Your task to perform on an android device: change timer sound Image 0: 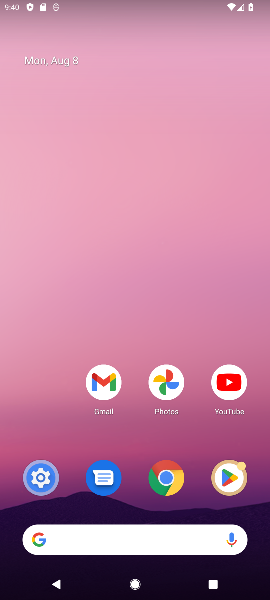
Step 0: drag from (141, 433) to (225, 84)
Your task to perform on an android device: change timer sound Image 1: 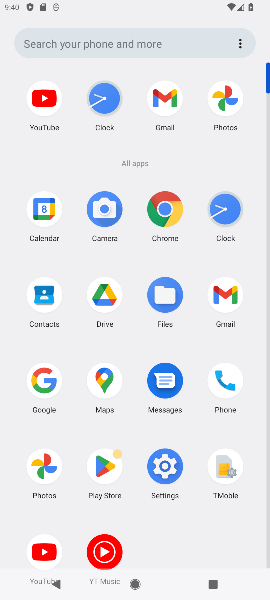
Step 1: click (222, 208)
Your task to perform on an android device: change timer sound Image 2: 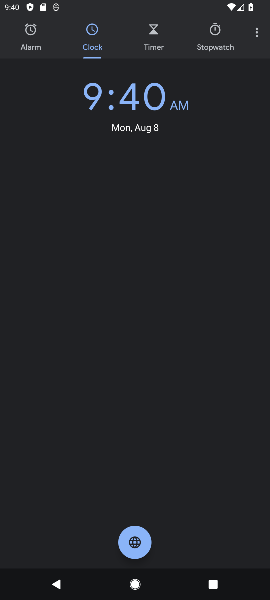
Step 2: click (253, 28)
Your task to perform on an android device: change timer sound Image 3: 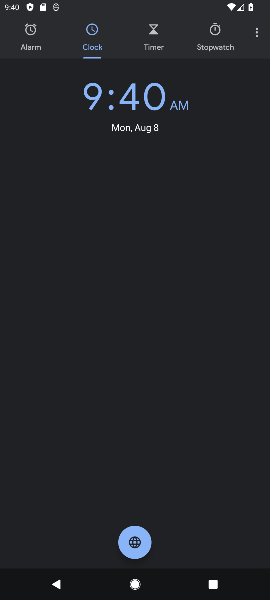
Step 3: click (258, 31)
Your task to perform on an android device: change timer sound Image 4: 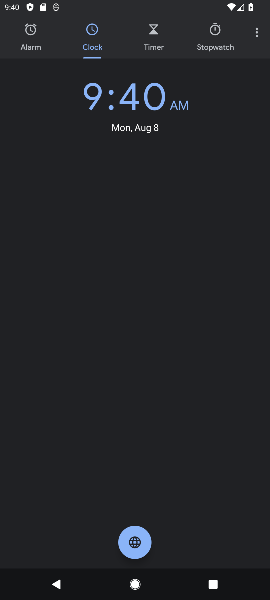
Step 4: click (257, 31)
Your task to perform on an android device: change timer sound Image 5: 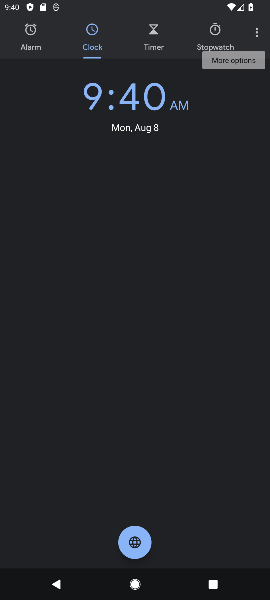
Step 5: click (260, 36)
Your task to perform on an android device: change timer sound Image 6: 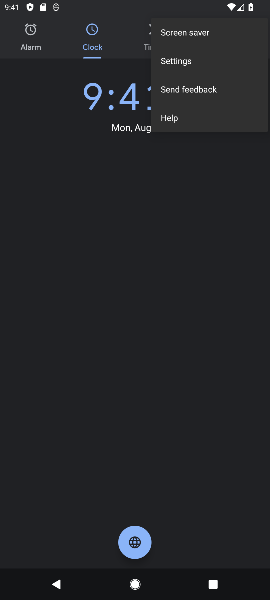
Step 6: click (204, 55)
Your task to perform on an android device: change timer sound Image 7: 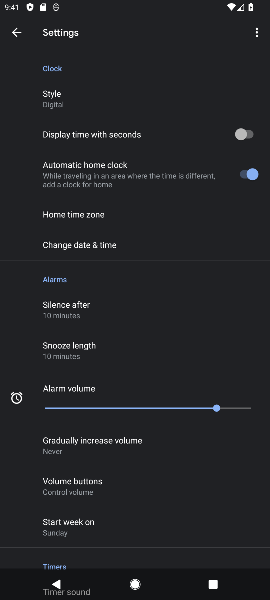
Step 7: drag from (145, 540) to (194, 201)
Your task to perform on an android device: change timer sound Image 8: 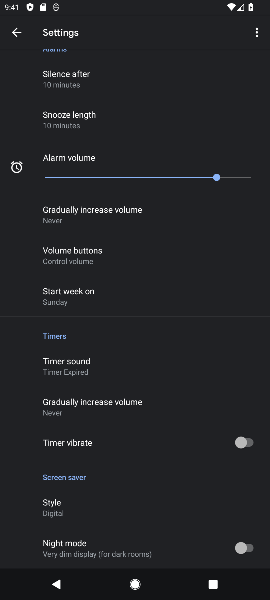
Step 8: click (86, 371)
Your task to perform on an android device: change timer sound Image 9: 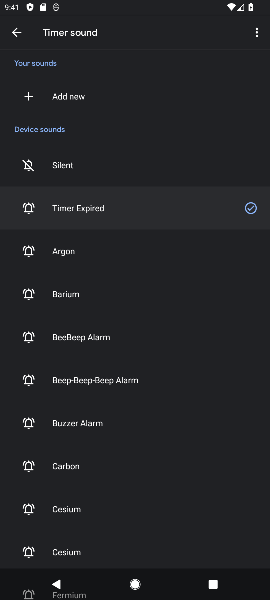
Step 9: click (101, 244)
Your task to perform on an android device: change timer sound Image 10: 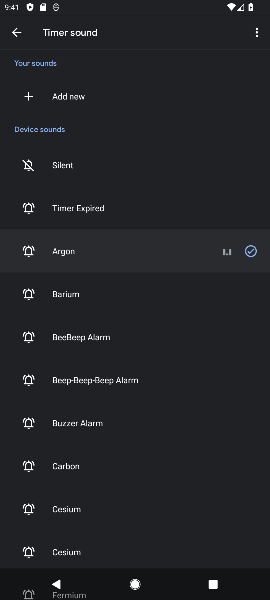
Step 10: task complete